Your task to perform on an android device: Add alienware area 51 to the cart on target Image 0: 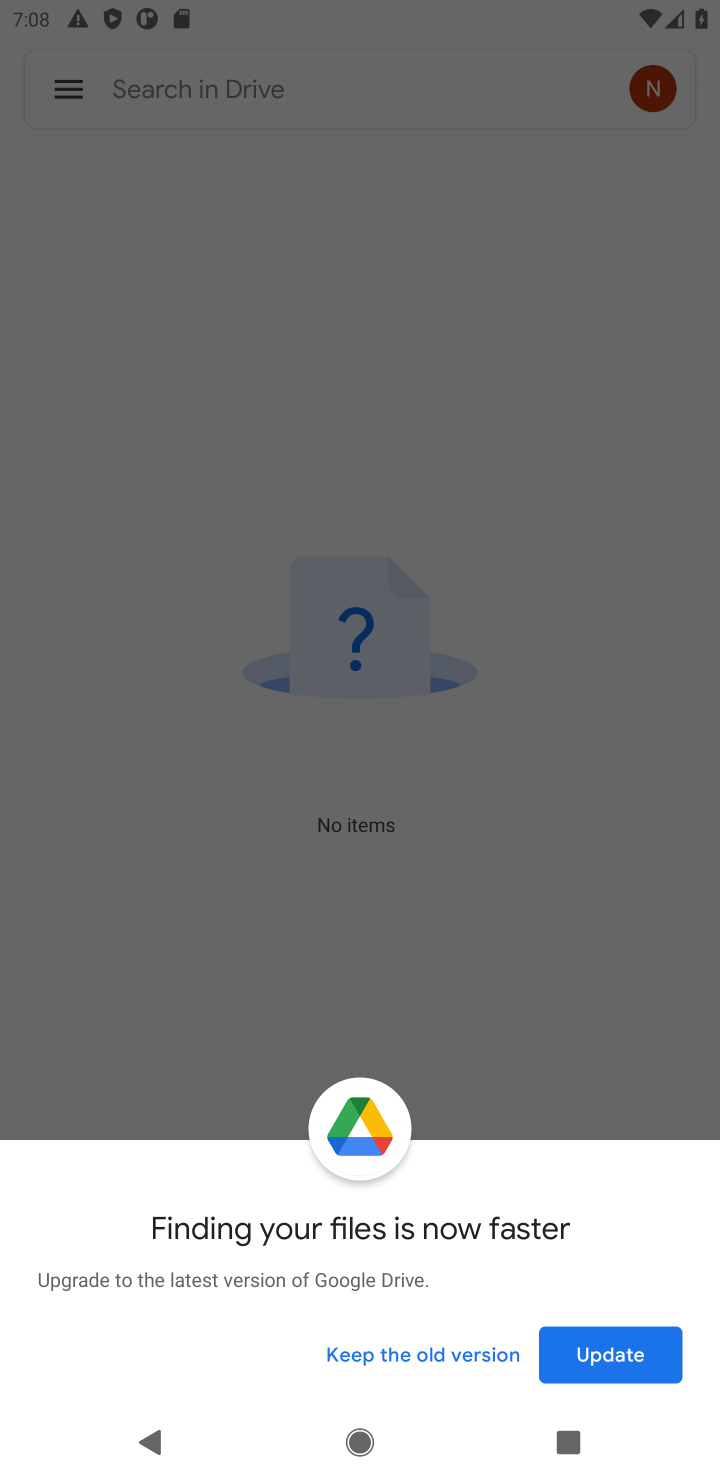
Step 0: click (385, 1343)
Your task to perform on an android device: Add alienware area 51 to the cart on target Image 1: 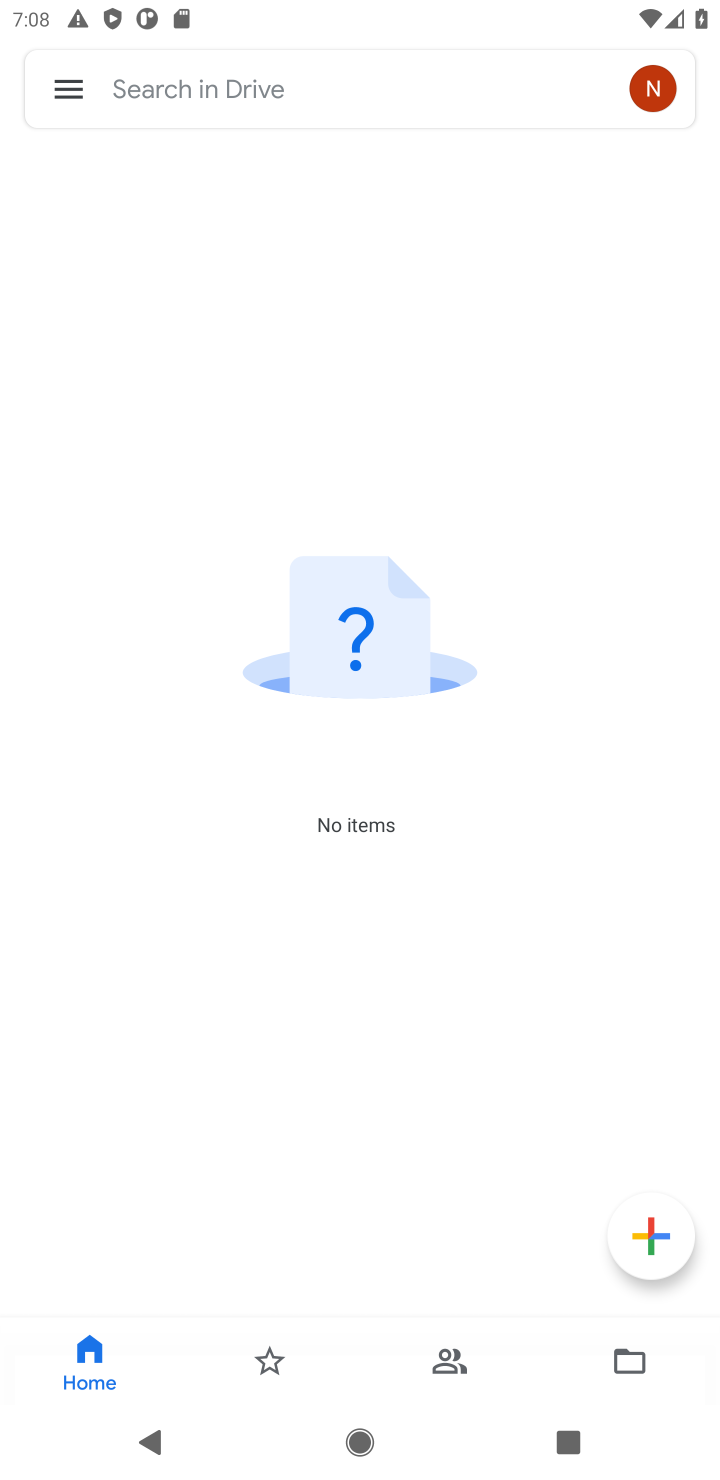
Step 1: press home button
Your task to perform on an android device: Add alienware area 51 to the cart on target Image 2: 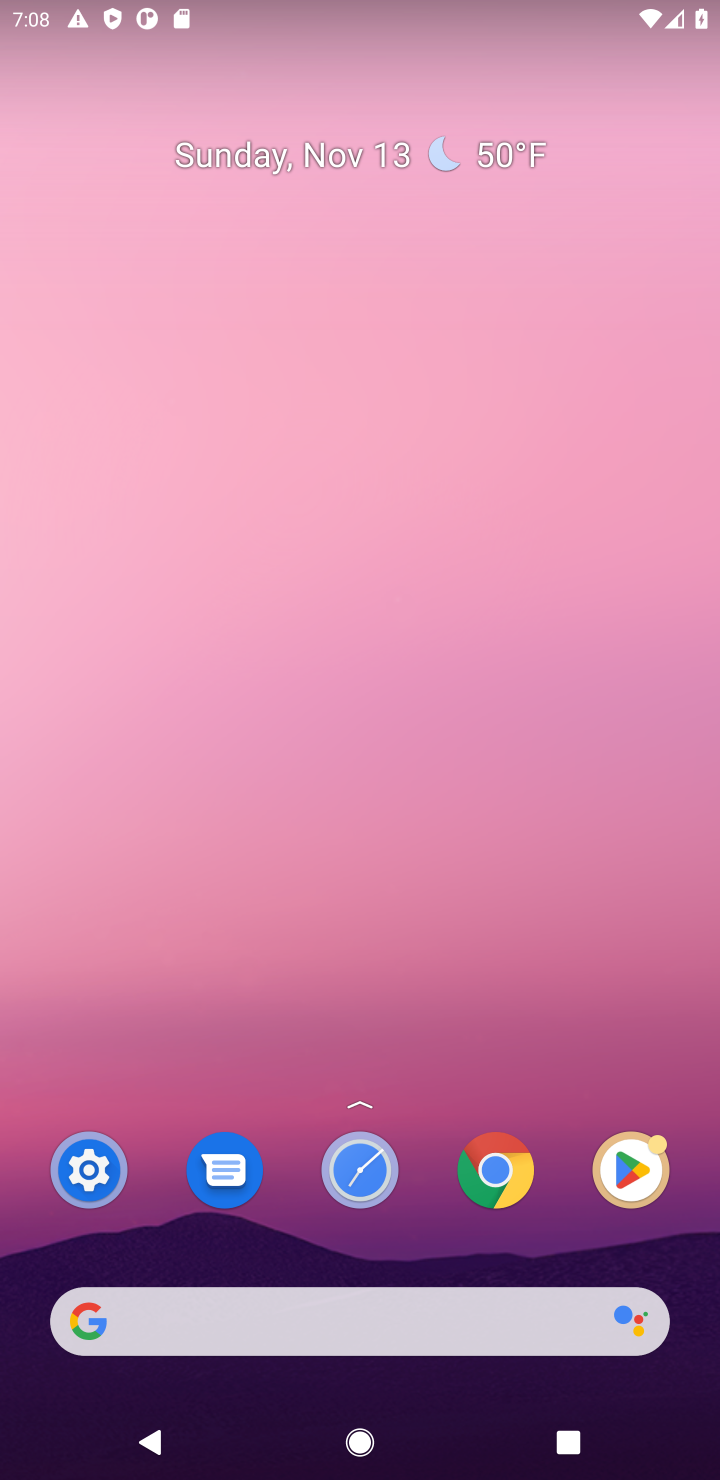
Step 2: click (401, 1294)
Your task to perform on an android device: Add alienware area 51 to the cart on target Image 3: 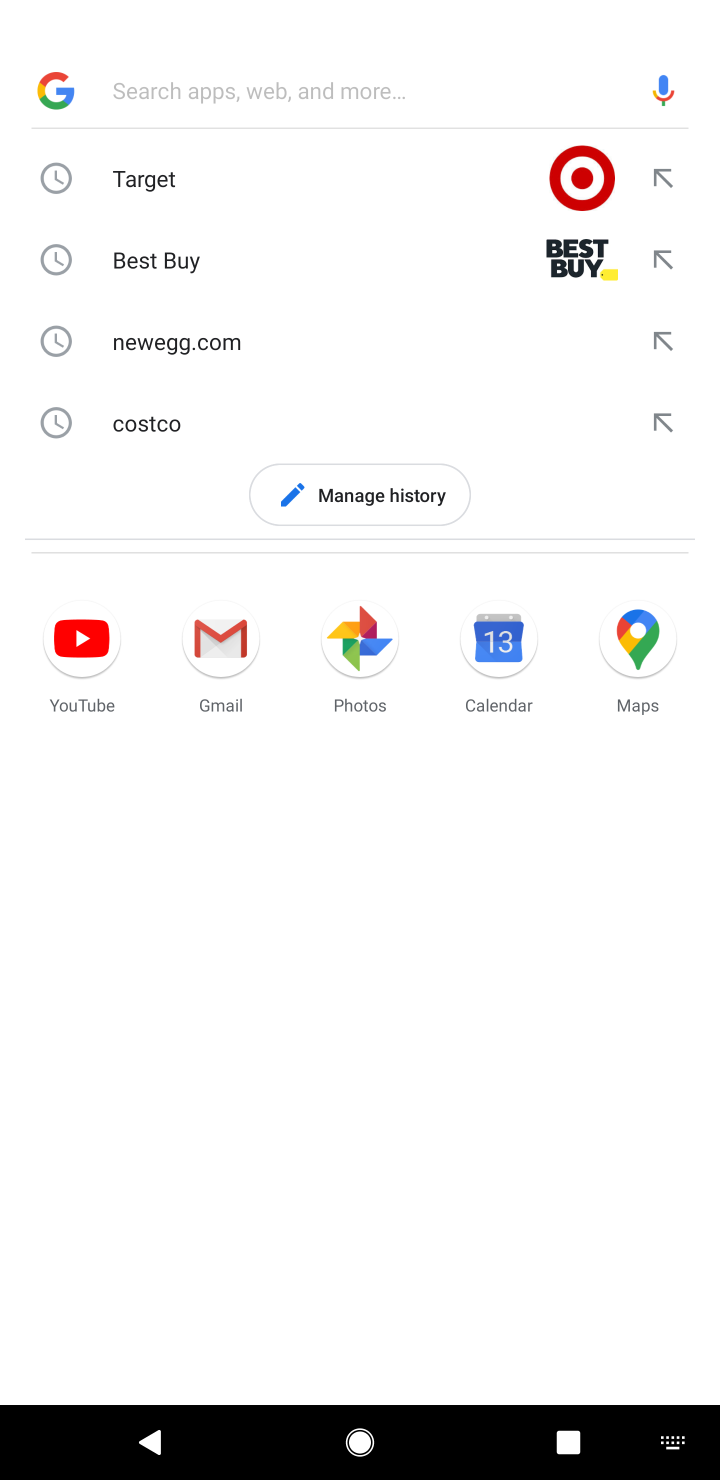
Step 3: click (283, 191)
Your task to perform on an android device: Add alienware area 51 to the cart on target Image 4: 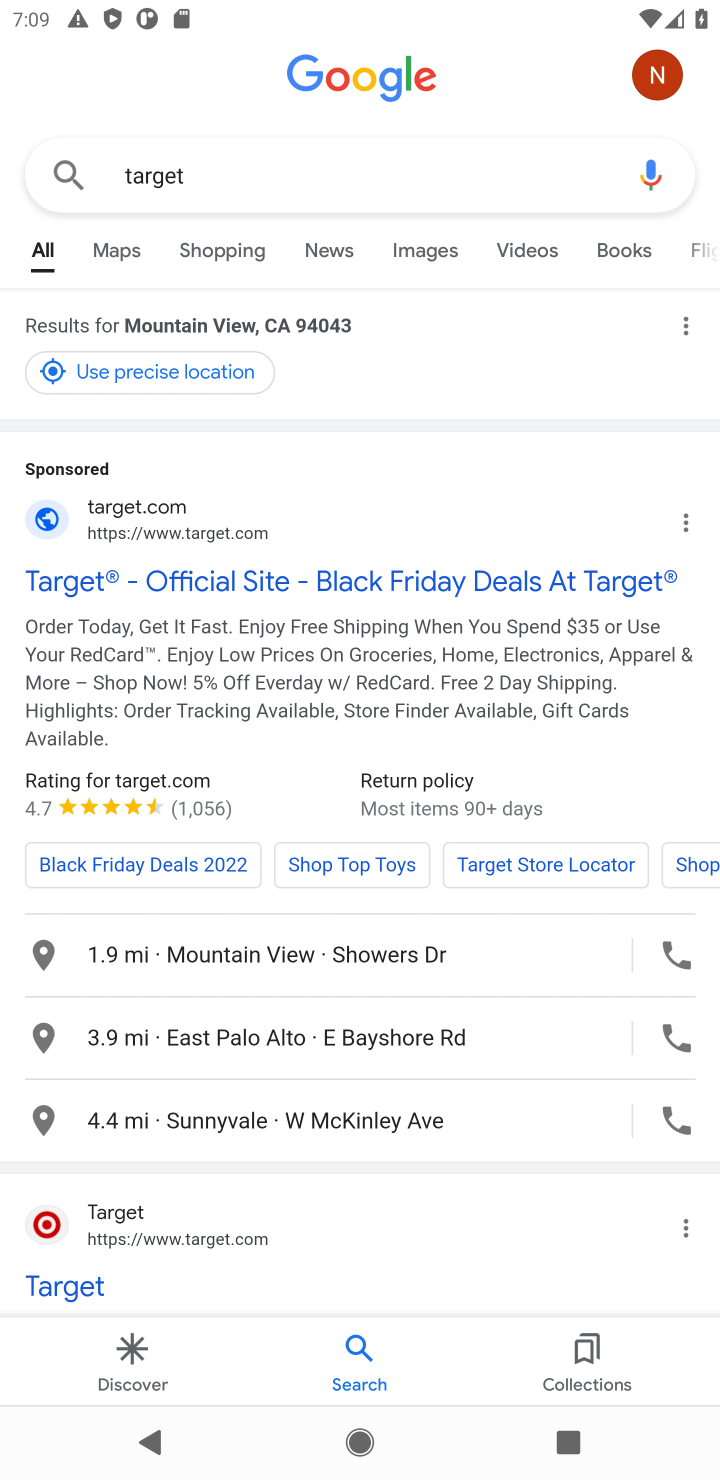
Step 4: click (206, 597)
Your task to perform on an android device: Add alienware area 51 to the cart on target Image 5: 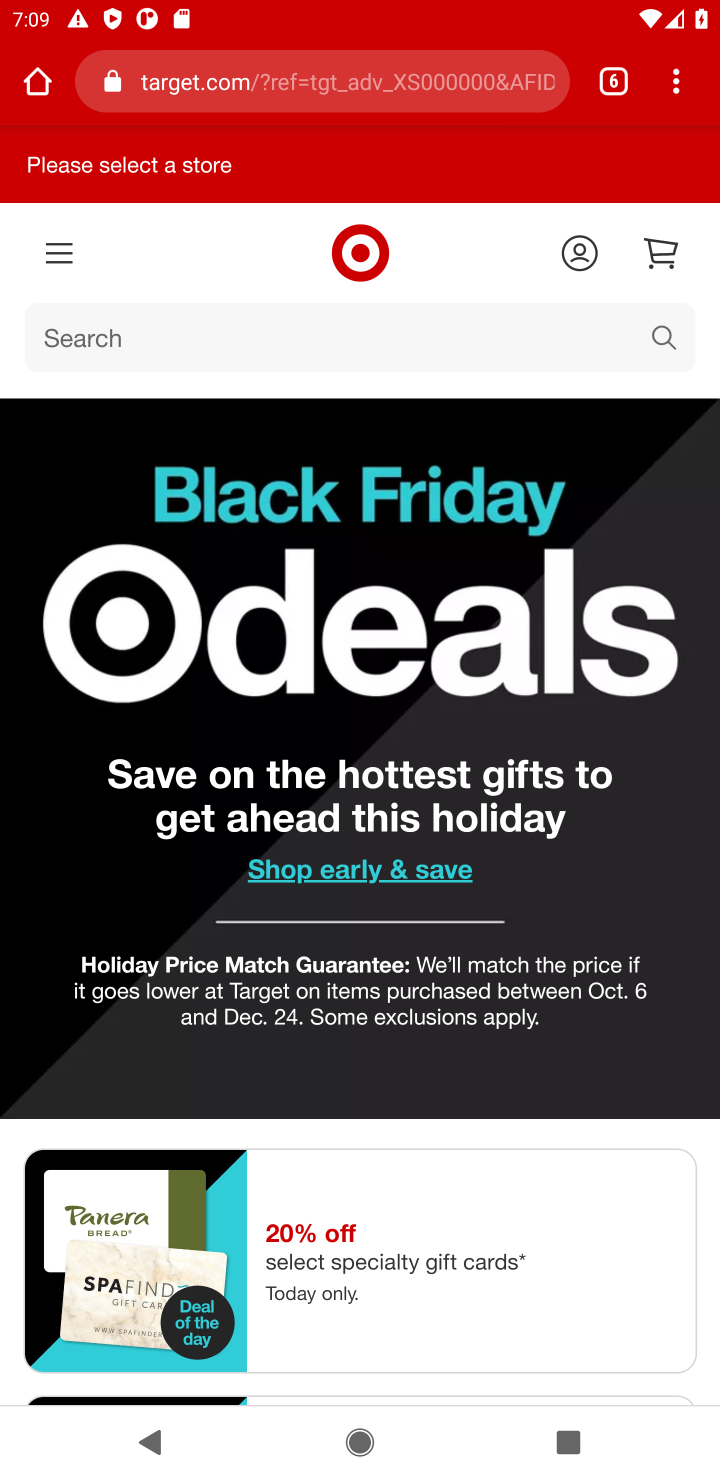
Step 5: click (121, 317)
Your task to perform on an android device: Add alienware area 51 to the cart on target Image 6: 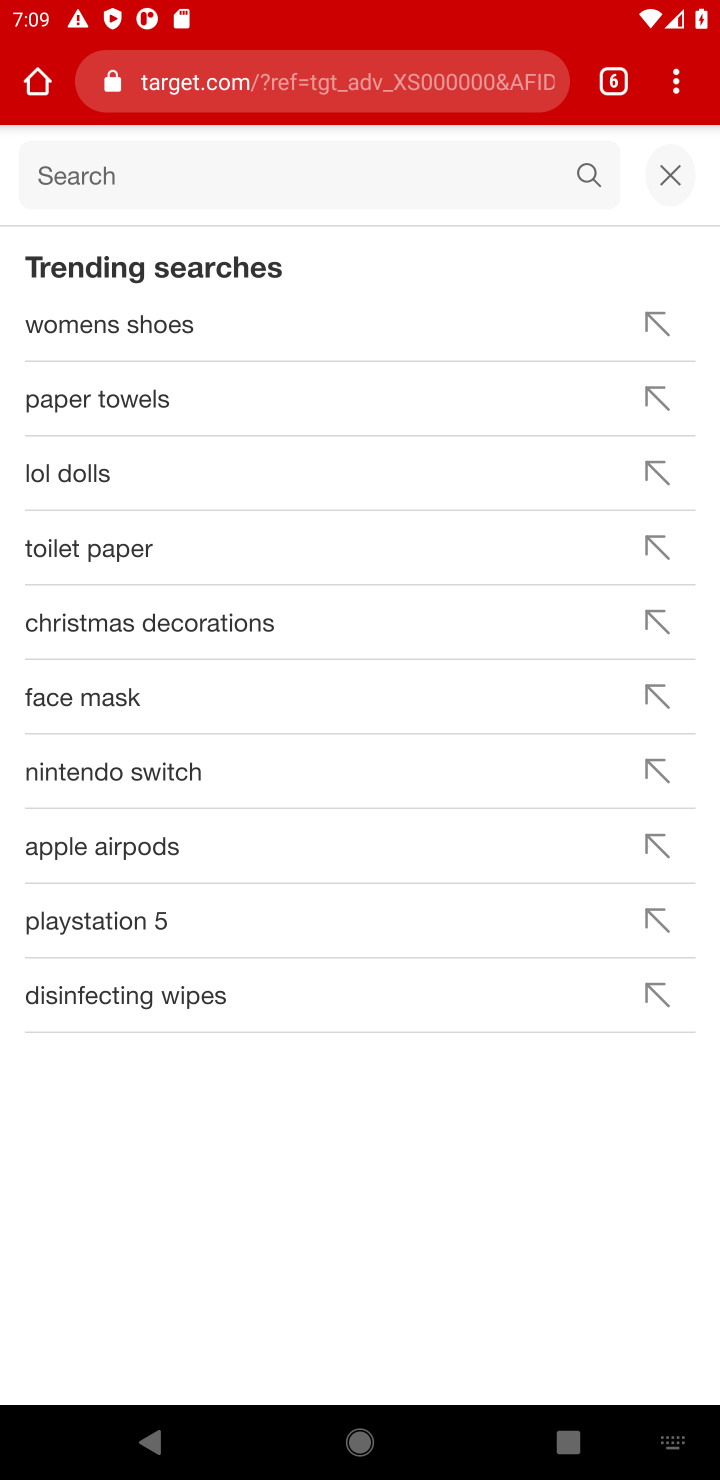
Step 6: type "area 51"
Your task to perform on an android device: Add alienware area 51 to the cart on target Image 7: 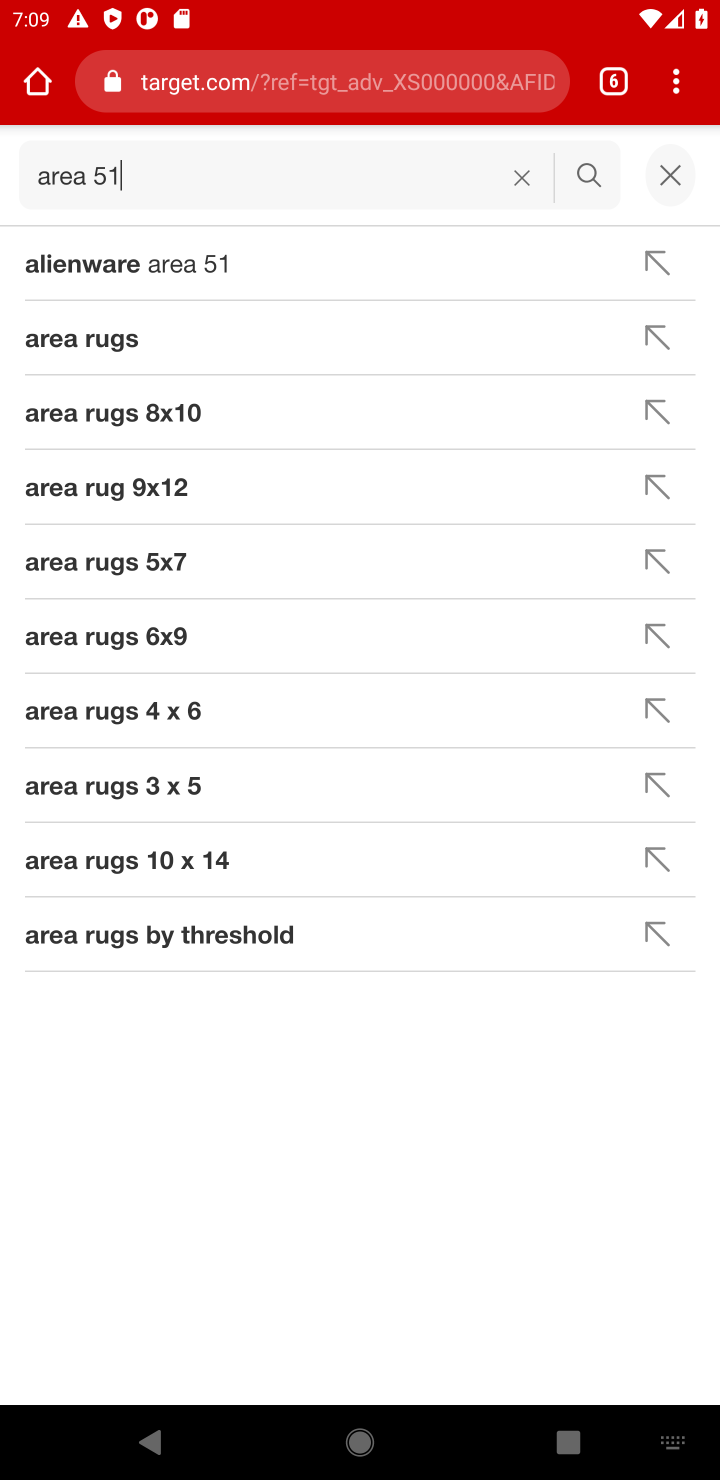
Step 7: click (217, 280)
Your task to perform on an android device: Add alienware area 51 to the cart on target Image 8: 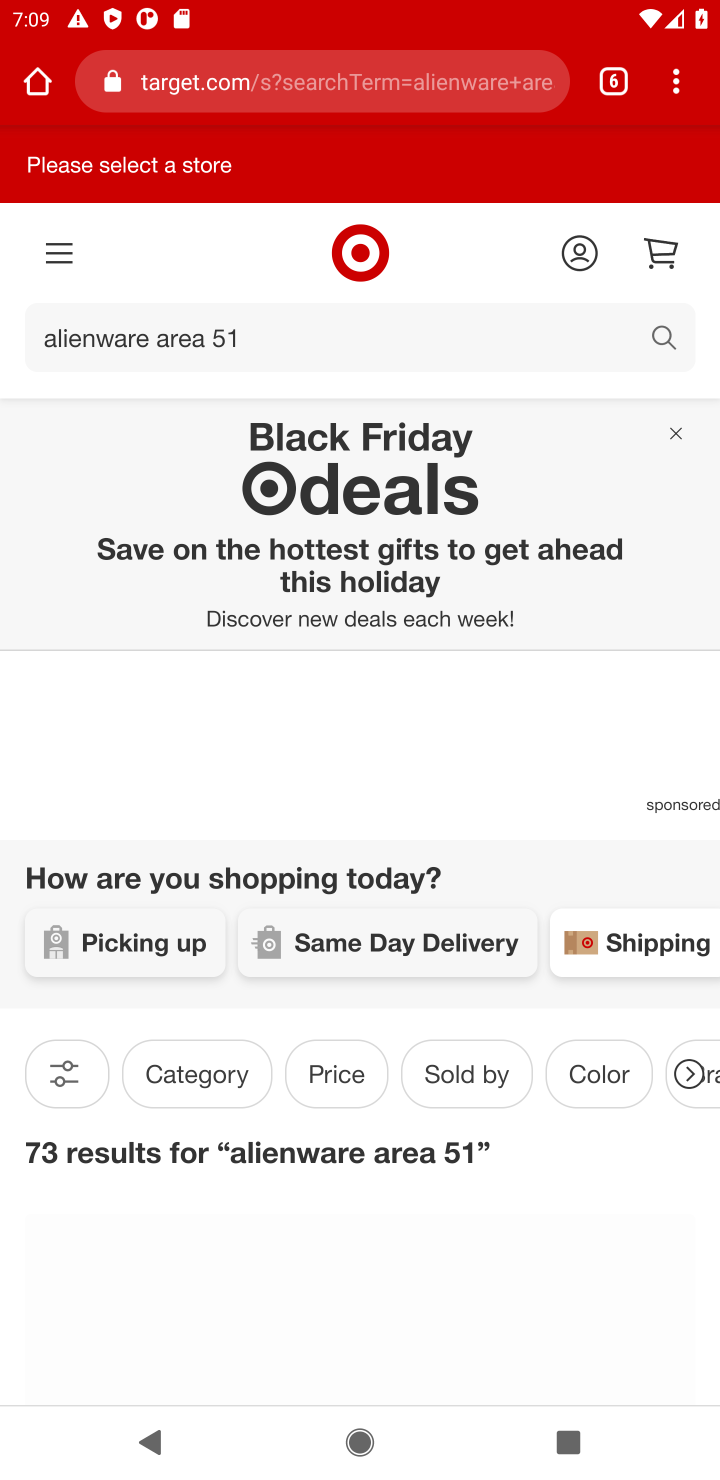
Step 8: task complete